Your task to perform on an android device: Search for sushi restaurants on Maps Image 0: 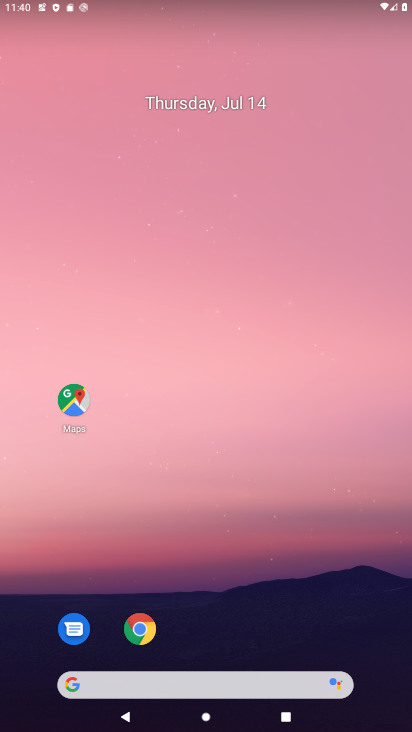
Step 0: press home button
Your task to perform on an android device: Search for sushi restaurants on Maps Image 1: 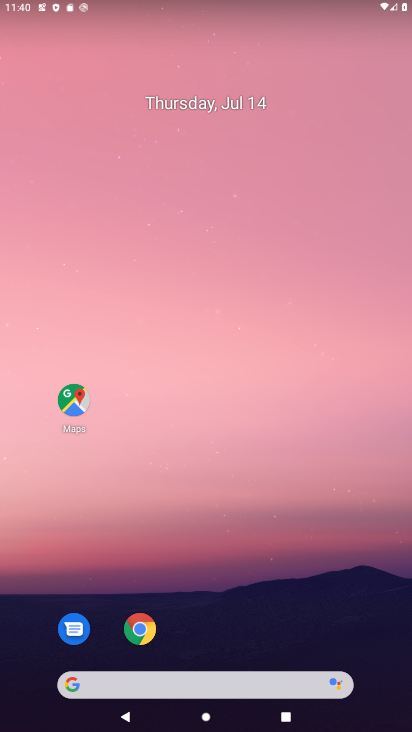
Step 1: click (71, 402)
Your task to perform on an android device: Search for sushi restaurants on Maps Image 2: 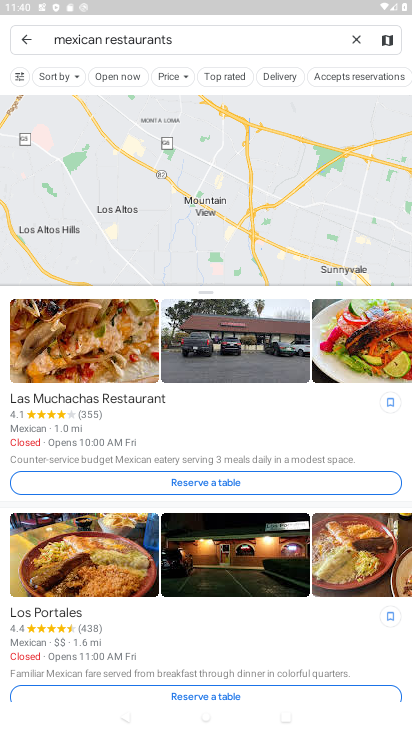
Step 2: click (355, 41)
Your task to perform on an android device: Search for sushi restaurants on Maps Image 3: 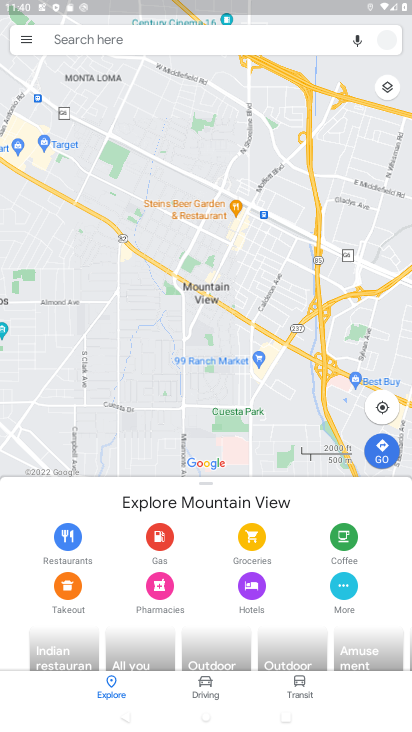
Step 3: type " sushi restaurants"
Your task to perform on an android device: Search for sushi restaurants on Maps Image 4: 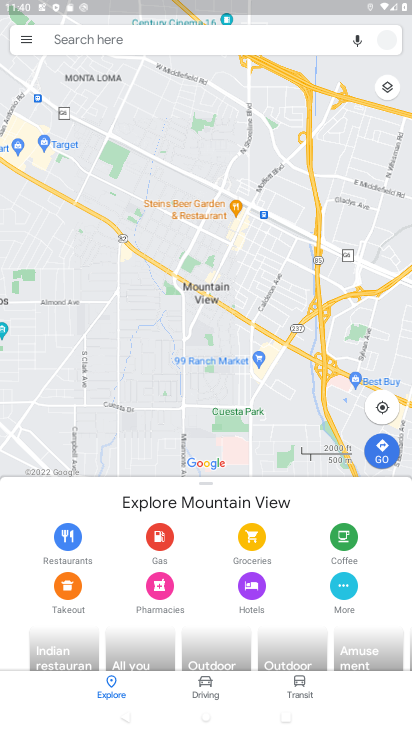
Step 4: click (125, 39)
Your task to perform on an android device: Search for sushi restaurants on Maps Image 5: 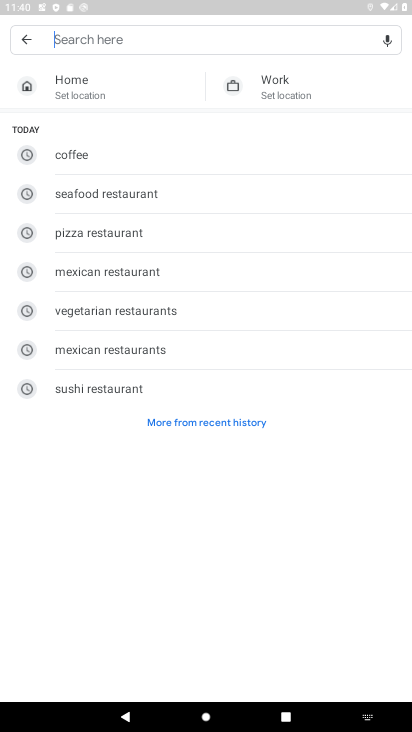
Step 5: click (108, 380)
Your task to perform on an android device: Search for sushi restaurants on Maps Image 6: 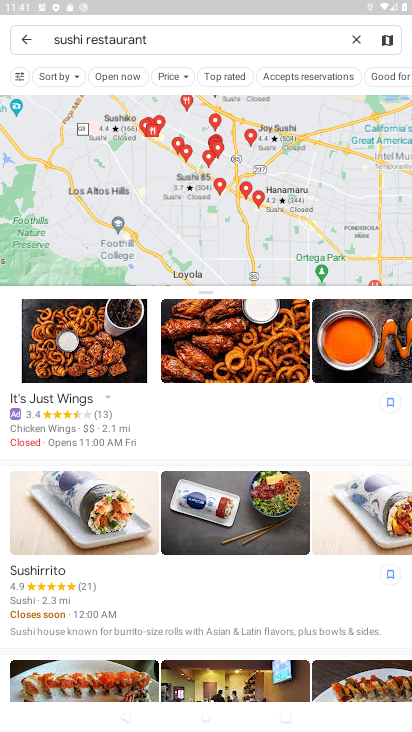
Step 6: task complete